Your task to perform on an android device: turn off wifi Image 0: 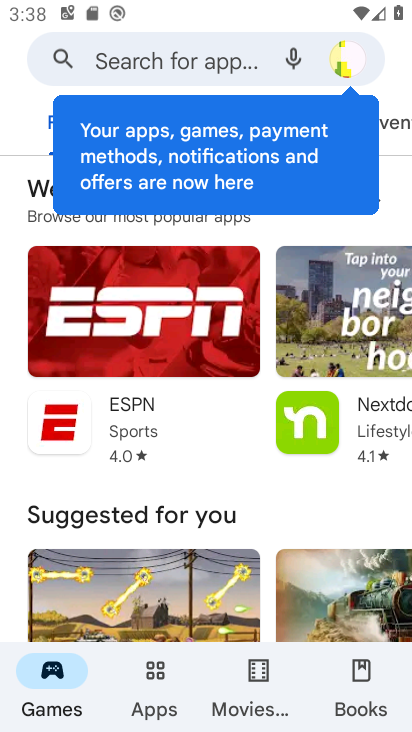
Step 0: drag from (320, 719) to (198, 249)
Your task to perform on an android device: turn off wifi Image 1: 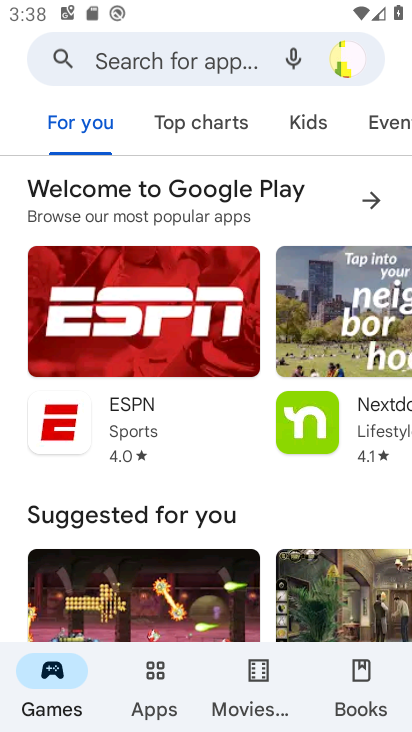
Step 1: press back button
Your task to perform on an android device: turn off wifi Image 2: 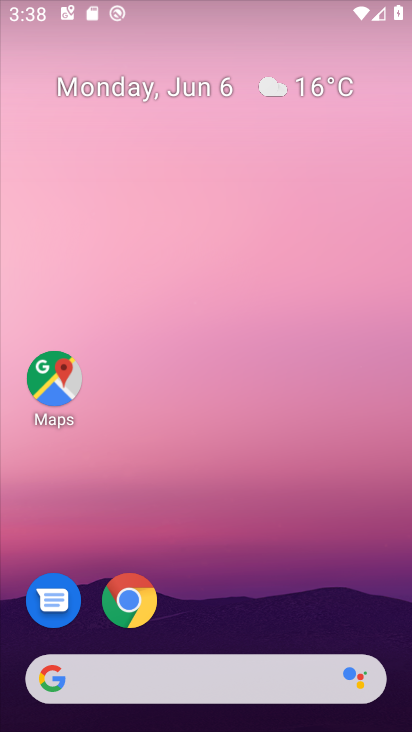
Step 2: drag from (270, 516) to (249, 240)
Your task to perform on an android device: turn off wifi Image 3: 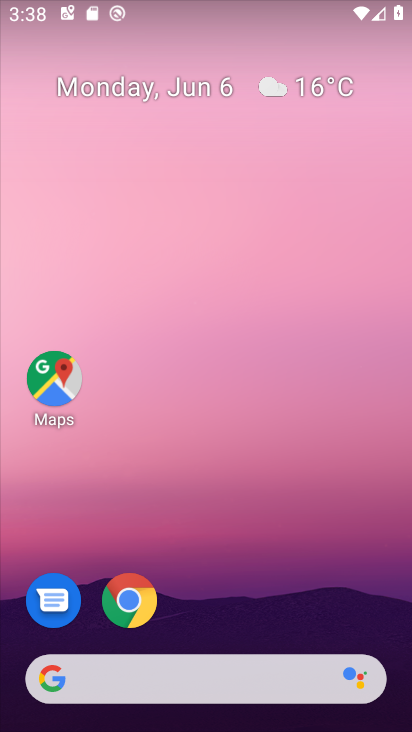
Step 3: drag from (277, 696) to (211, 283)
Your task to perform on an android device: turn off wifi Image 4: 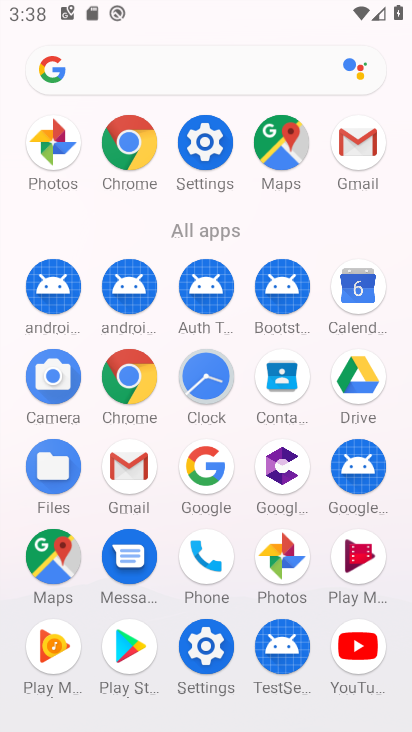
Step 4: click (193, 145)
Your task to perform on an android device: turn off wifi Image 5: 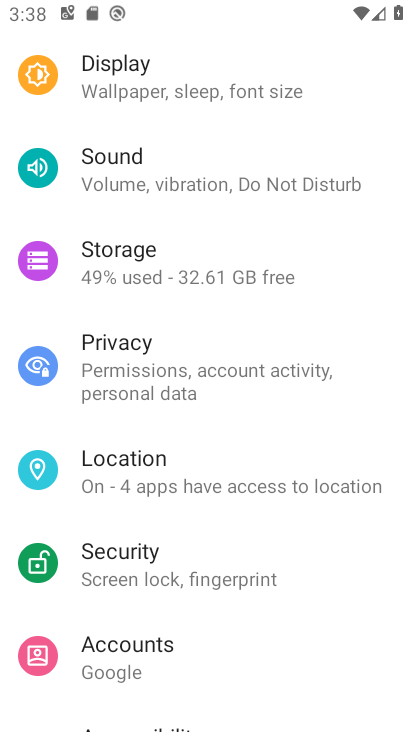
Step 5: drag from (210, 79) to (231, 589)
Your task to perform on an android device: turn off wifi Image 6: 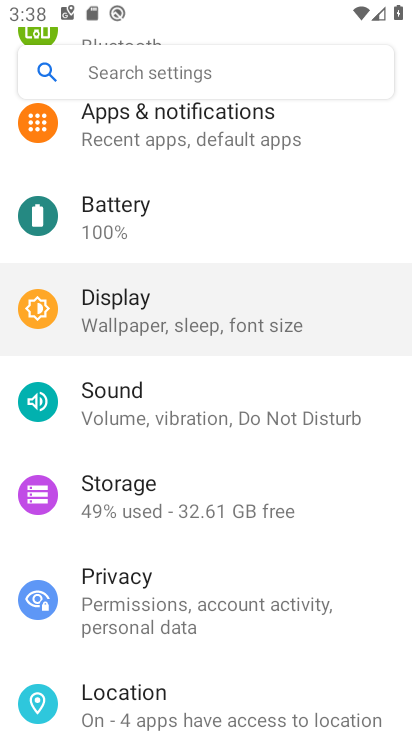
Step 6: drag from (174, 167) to (216, 551)
Your task to perform on an android device: turn off wifi Image 7: 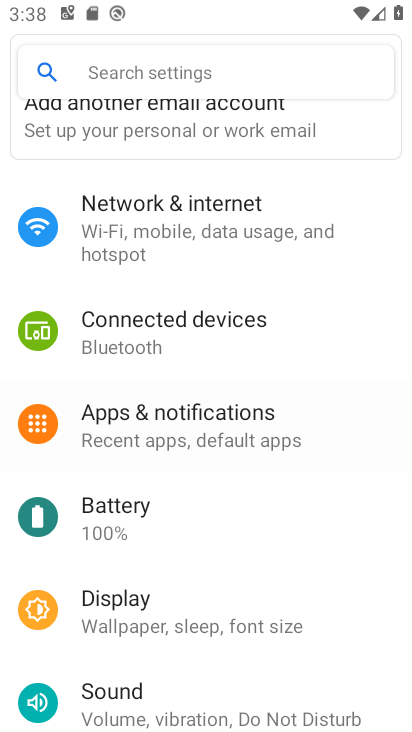
Step 7: drag from (127, 237) to (166, 603)
Your task to perform on an android device: turn off wifi Image 8: 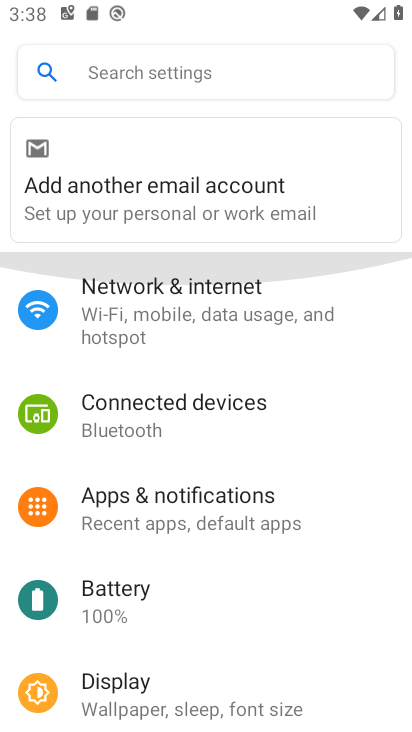
Step 8: drag from (159, 234) to (238, 625)
Your task to perform on an android device: turn off wifi Image 9: 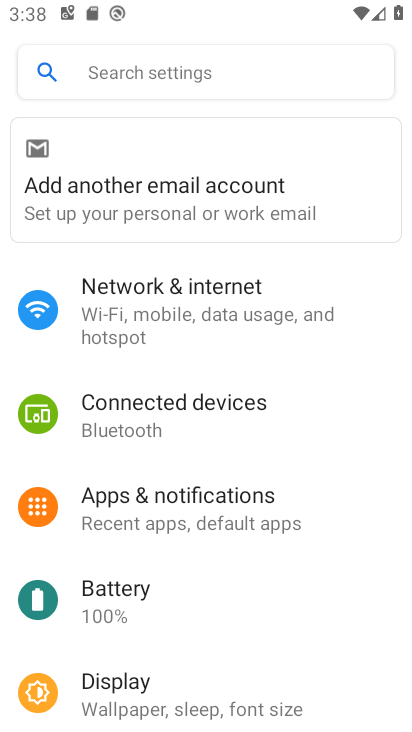
Step 9: click (165, 307)
Your task to perform on an android device: turn off wifi Image 10: 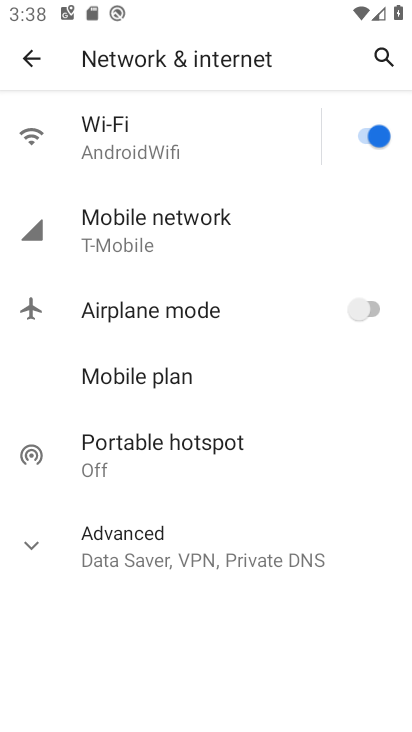
Step 10: click (372, 126)
Your task to perform on an android device: turn off wifi Image 11: 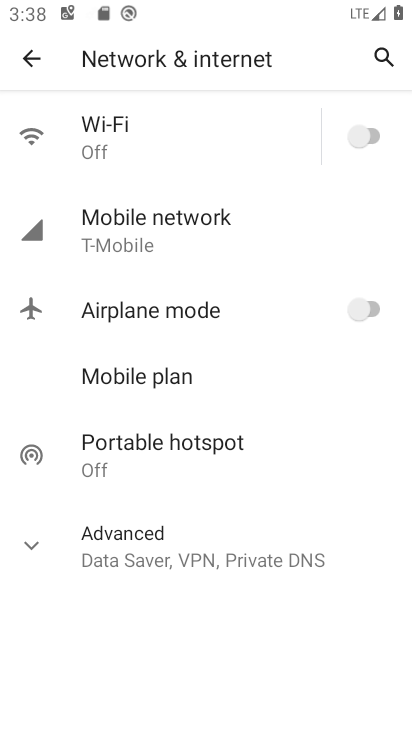
Step 11: task complete